Your task to perform on an android device: toggle notification dots Image 0: 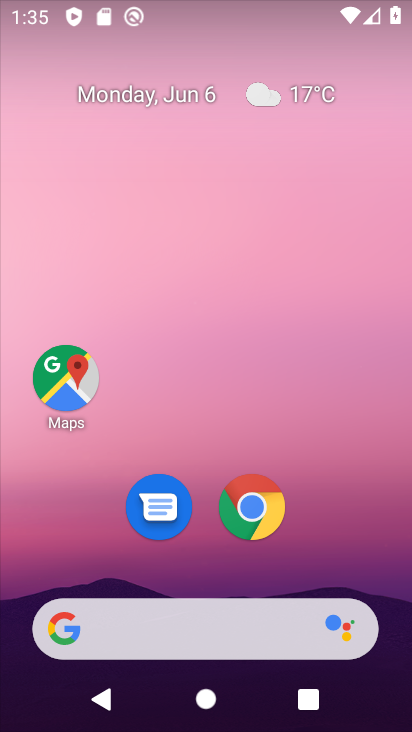
Step 0: drag from (387, 592) to (289, 224)
Your task to perform on an android device: toggle notification dots Image 1: 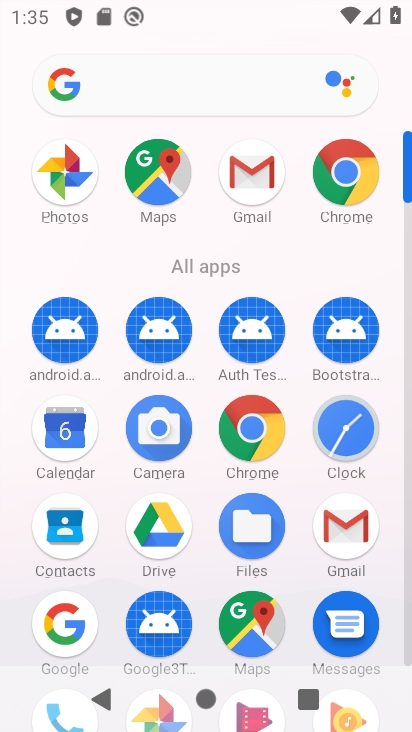
Step 1: click (410, 659)
Your task to perform on an android device: toggle notification dots Image 2: 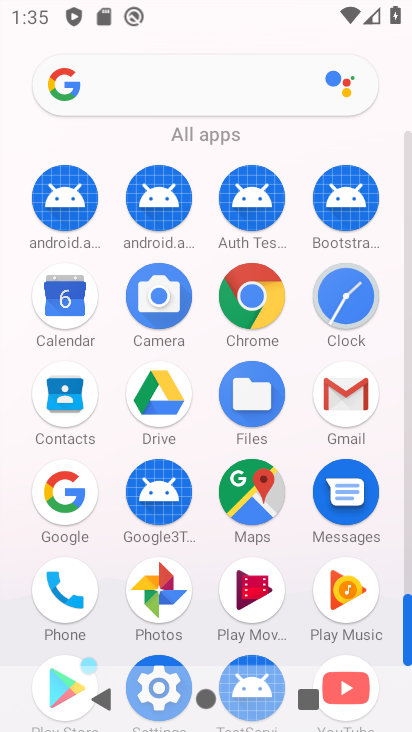
Step 2: click (168, 659)
Your task to perform on an android device: toggle notification dots Image 3: 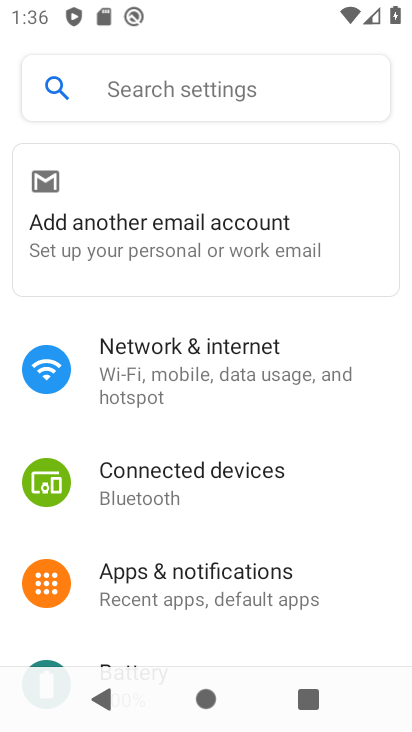
Step 3: drag from (225, 634) to (213, 379)
Your task to perform on an android device: toggle notification dots Image 4: 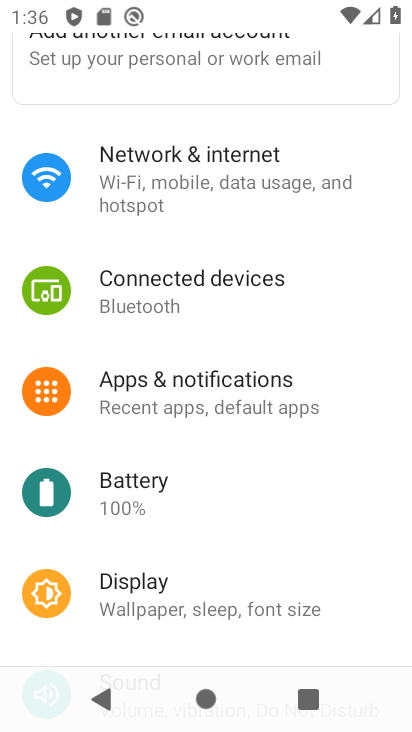
Step 4: click (213, 379)
Your task to perform on an android device: toggle notification dots Image 5: 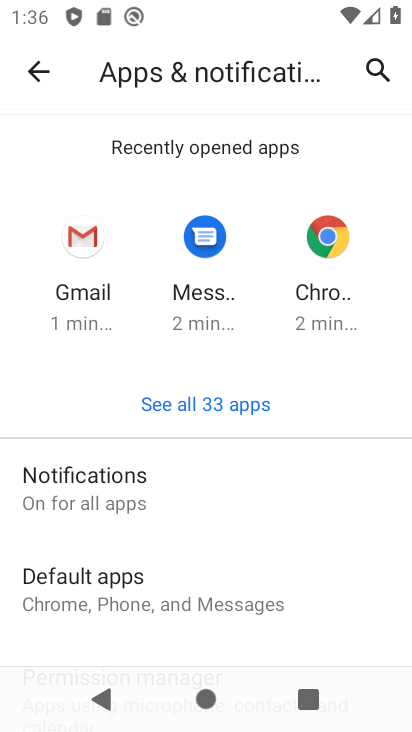
Step 5: click (206, 471)
Your task to perform on an android device: toggle notification dots Image 6: 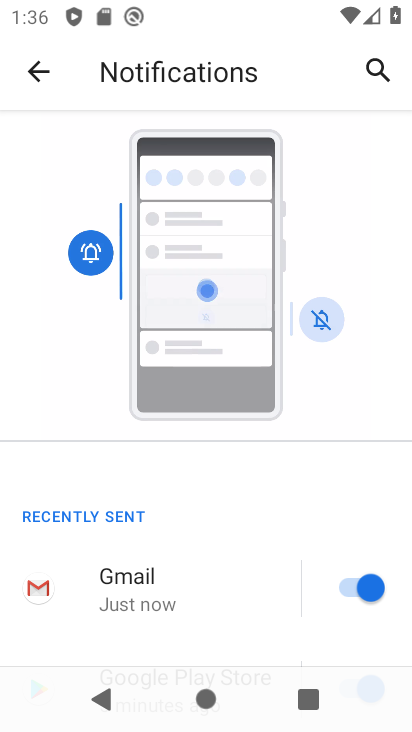
Step 6: drag from (258, 637) to (234, 172)
Your task to perform on an android device: toggle notification dots Image 7: 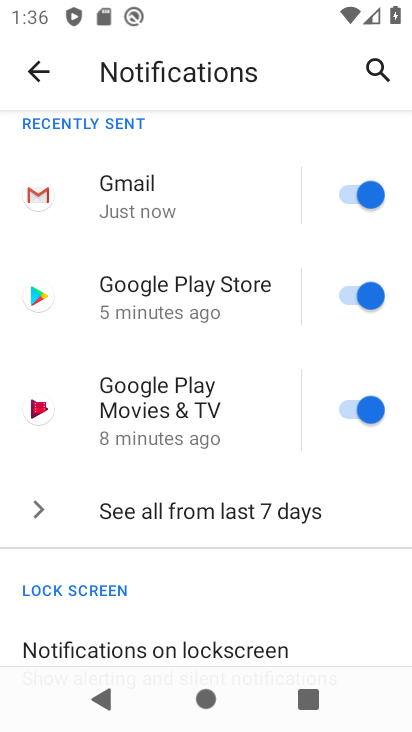
Step 7: drag from (305, 585) to (278, 244)
Your task to perform on an android device: toggle notification dots Image 8: 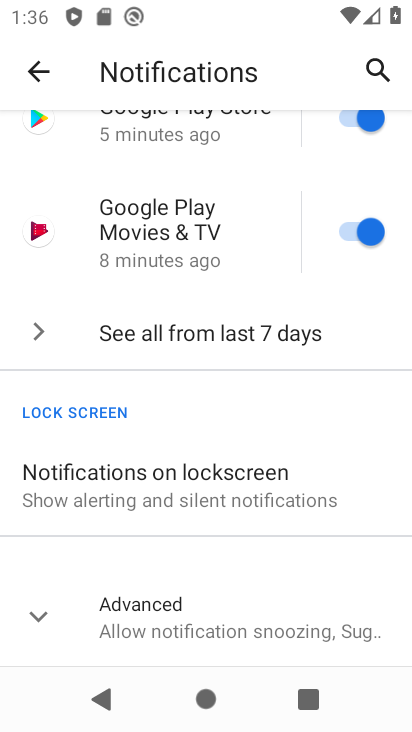
Step 8: drag from (286, 281) to (250, 156)
Your task to perform on an android device: toggle notification dots Image 9: 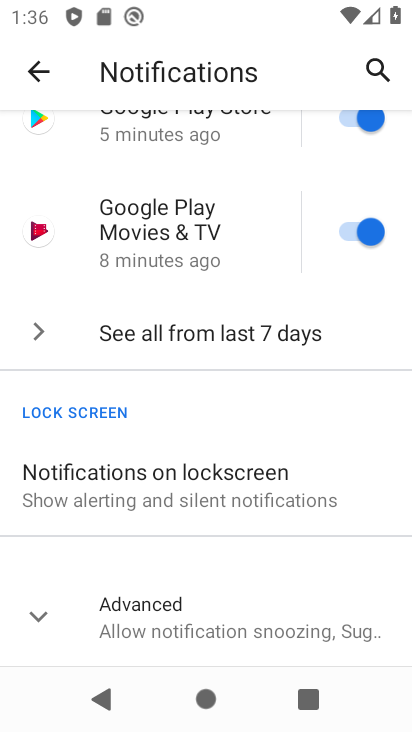
Step 9: drag from (268, 612) to (250, 425)
Your task to perform on an android device: toggle notification dots Image 10: 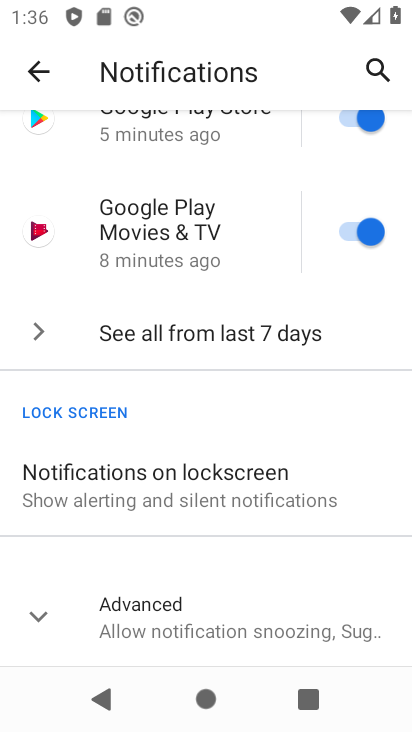
Step 10: click (265, 611)
Your task to perform on an android device: toggle notification dots Image 11: 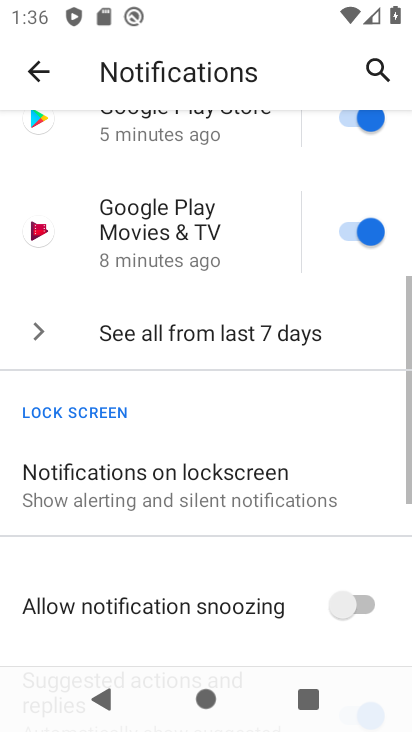
Step 11: drag from (265, 611) to (220, 255)
Your task to perform on an android device: toggle notification dots Image 12: 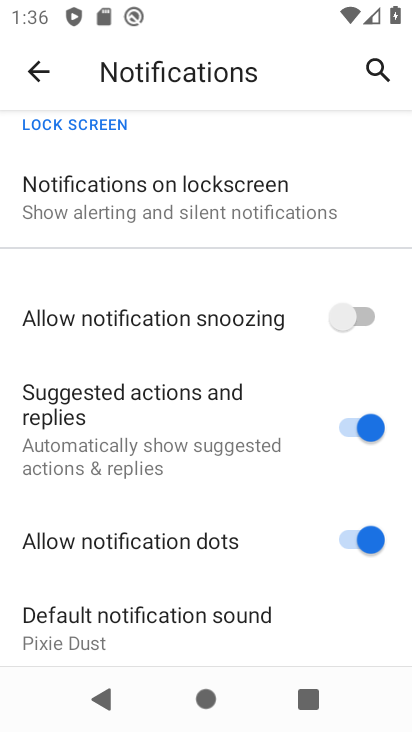
Step 12: click (351, 547)
Your task to perform on an android device: toggle notification dots Image 13: 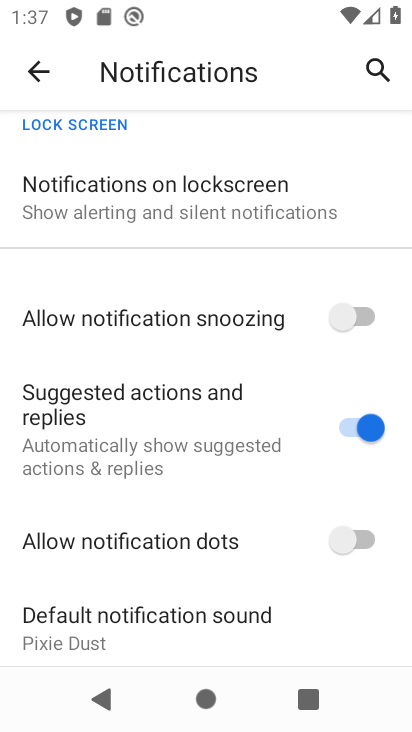
Step 13: task complete